Your task to perform on an android device: change the upload size in google photos Image 0: 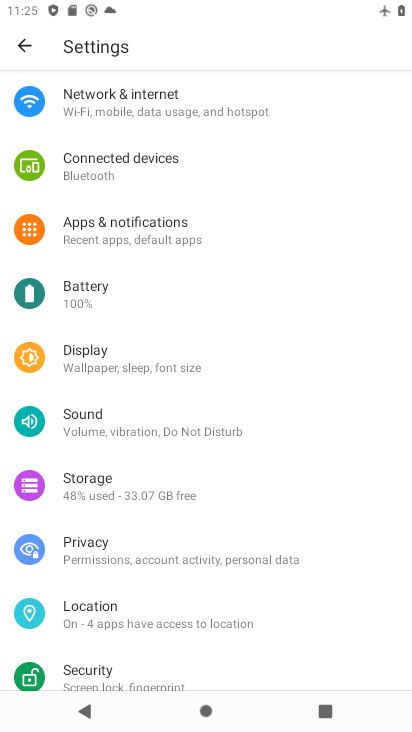
Step 0: press home button
Your task to perform on an android device: change the upload size in google photos Image 1: 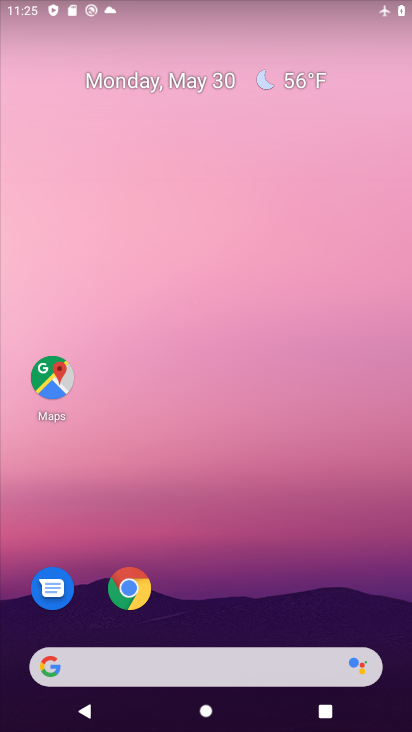
Step 1: drag from (228, 608) to (302, 35)
Your task to perform on an android device: change the upload size in google photos Image 2: 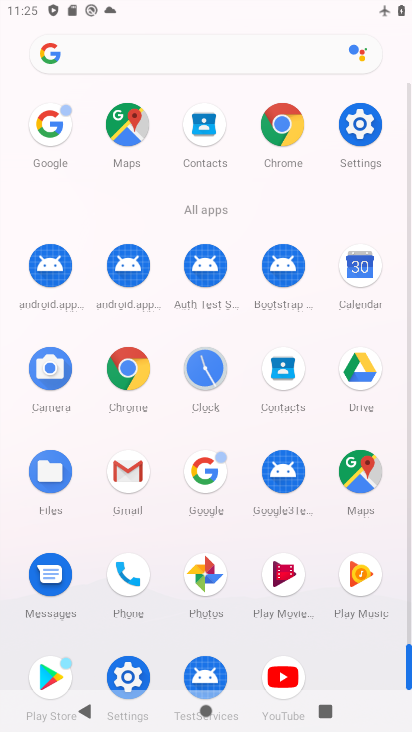
Step 2: click (196, 607)
Your task to perform on an android device: change the upload size in google photos Image 3: 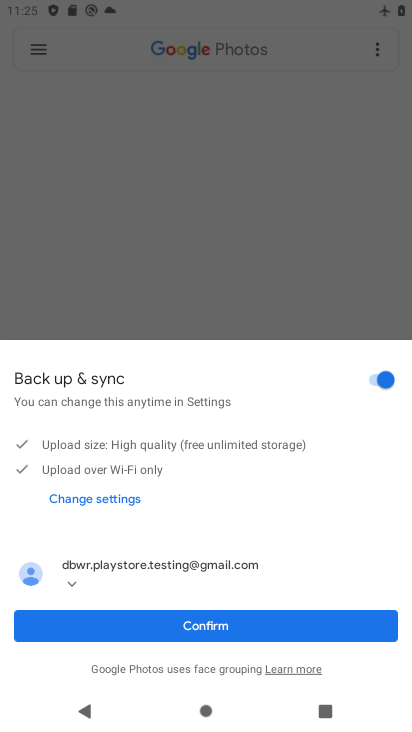
Step 3: click (193, 632)
Your task to perform on an android device: change the upload size in google photos Image 4: 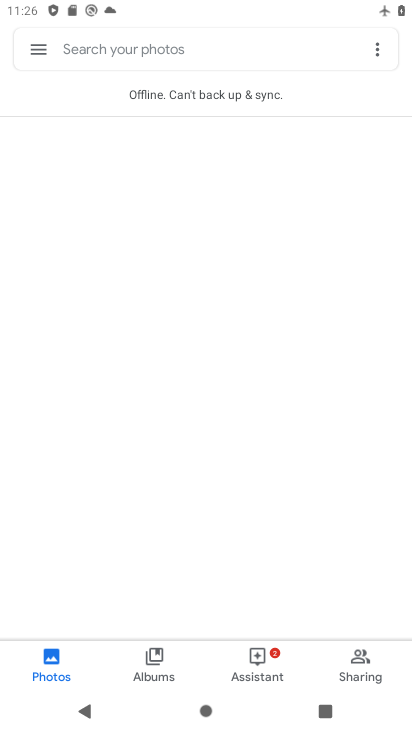
Step 4: click (42, 51)
Your task to perform on an android device: change the upload size in google photos Image 5: 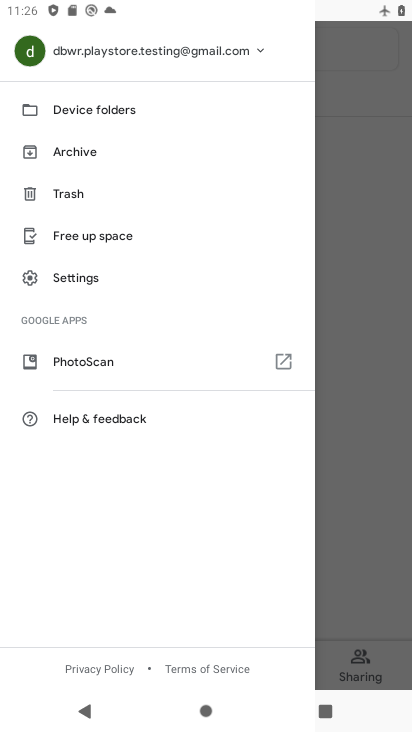
Step 5: click (95, 284)
Your task to perform on an android device: change the upload size in google photos Image 6: 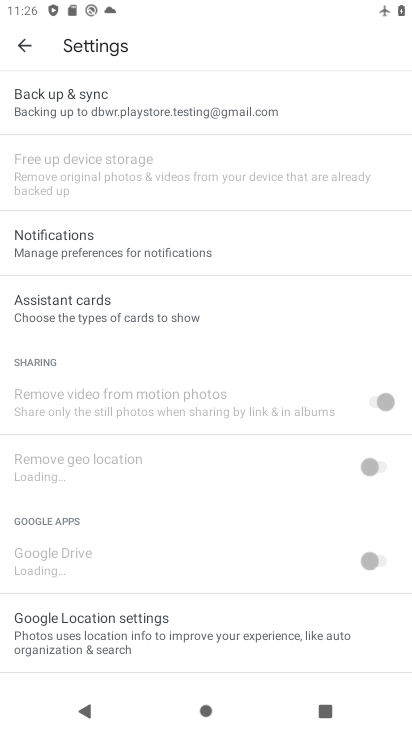
Step 6: click (86, 112)
Your task to perform on an android device: change the upload size in google photos Image 7: 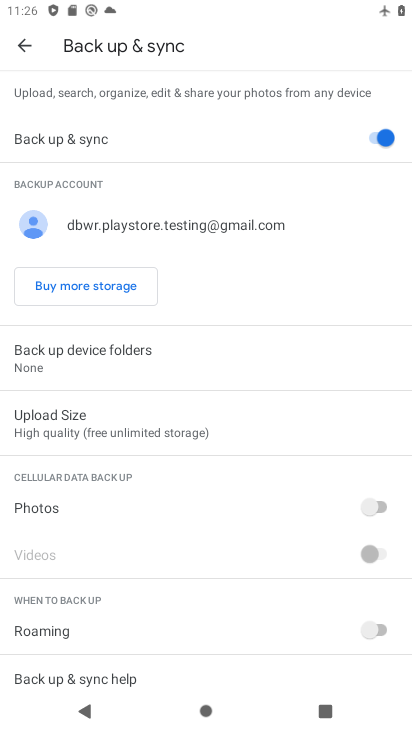
Step 7: click (96, 430)
Your task to perform on an android device: change the upload size in google photos Image 8: 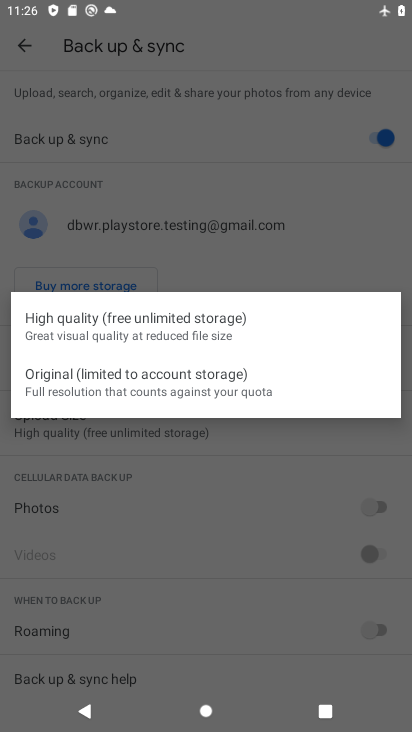
Step 8: click (132, 387)
Your task to perform on an android device: change the upload size in google photos Image 9: 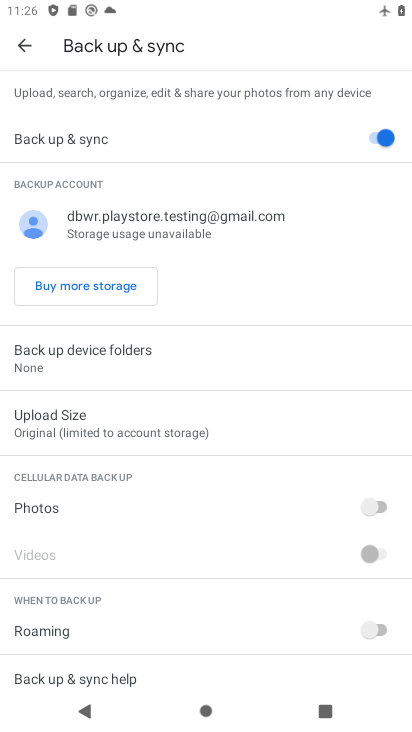
Step 9: task complete